Your task to perform on an android device: Open my contact list Image 0: 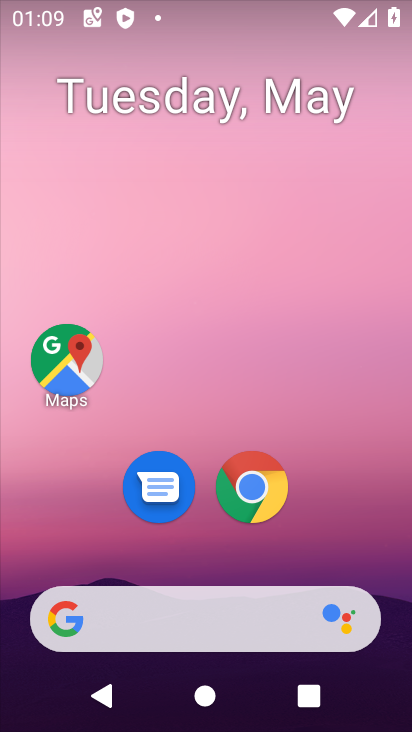
Step 0: drag from (168, 539) to (240, 189)
Your task to perform on an android device: Open my contact list Image 1: 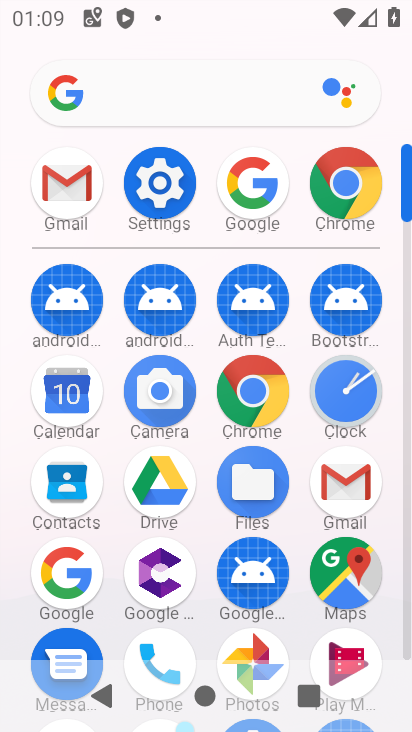
Step 1: click (66, 482)
Your task to perform on an android device: Open my contact list Image 2: 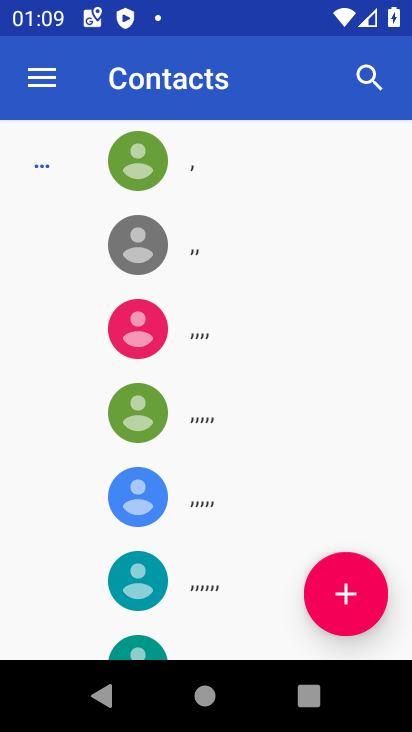
Step 2: task complete